Your task to perform on an android device: Open Android settings Image 0: 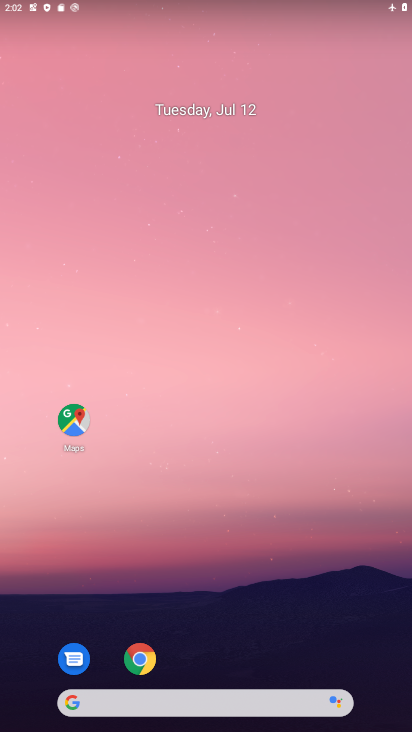
Step 0: drag from (209, 724) to (210, 198)
Your task to perform on an android device: Open Android settings Image 1: 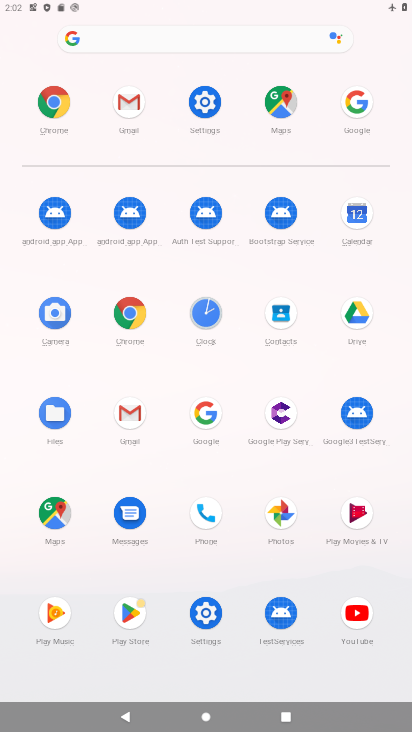
Step 1: click (204, 100)
Your task to perform on an android device: Open Android settings Image 2: 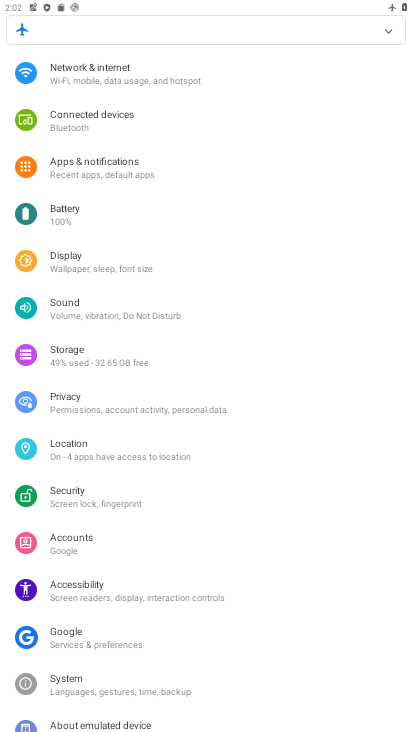
Step 2: task complete